Your task to perform on an android device: turn pop-ups on in chrome Image 0: 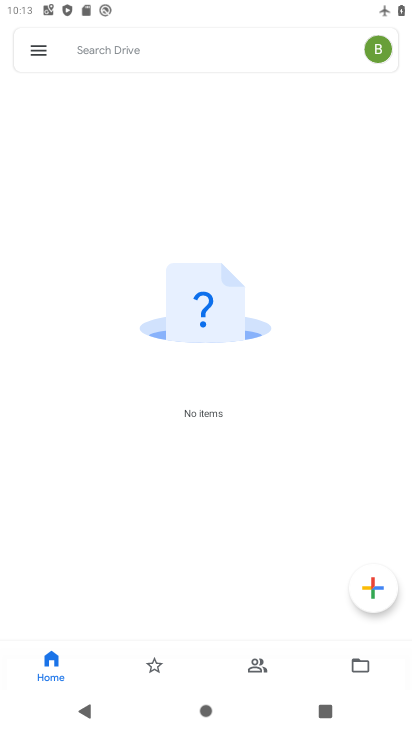
Step 0: press home button
Your task to perform on an android device: turn pop-ups on in chrome Image 1: 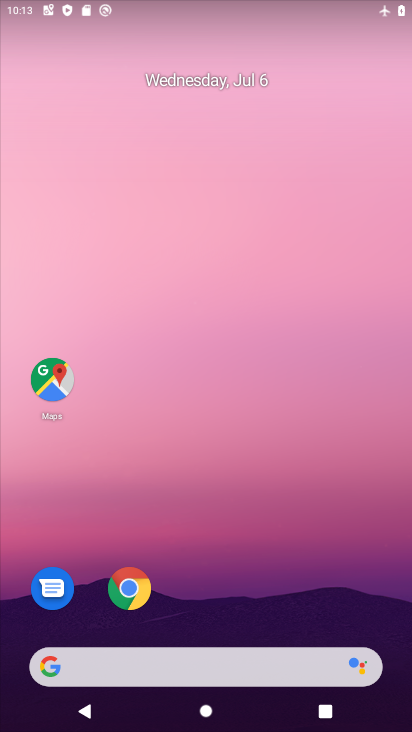
Step 1: drag from (254, 579) to (268, 268)
Your task to perform on an android device: turn pop-ups on in chrome Image 2: 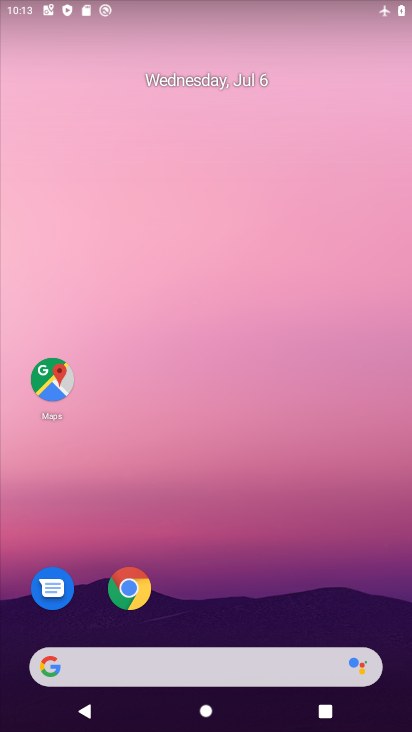
Step 2: drag from (191, 615) to (210, 273)
Your task to perform on an android device: turn pop-ups on in chrome Image 3: 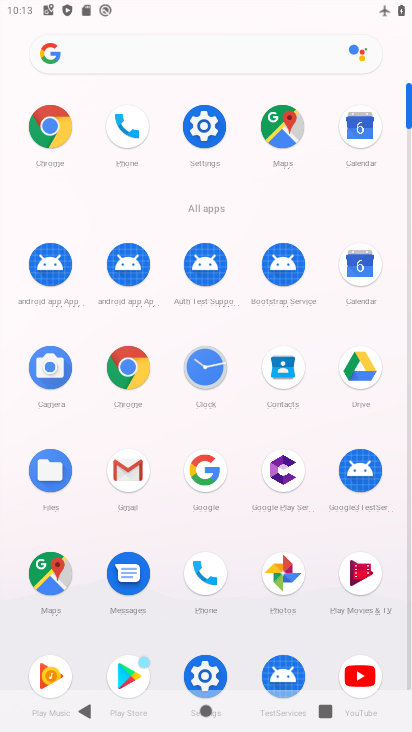
Step 3: click (128, 357)
Your task to perform on an android device: turn pop-ups on in chrome Image 4: 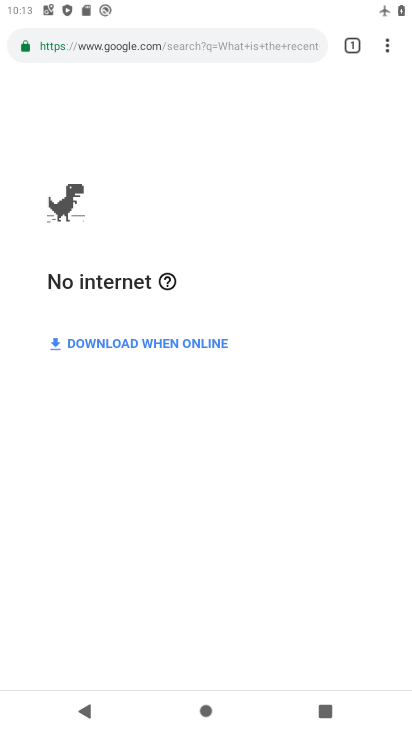
Step 4: click (391, 26)
Your task to perform on an android device: turn pop-ups on in chrome Image 5: 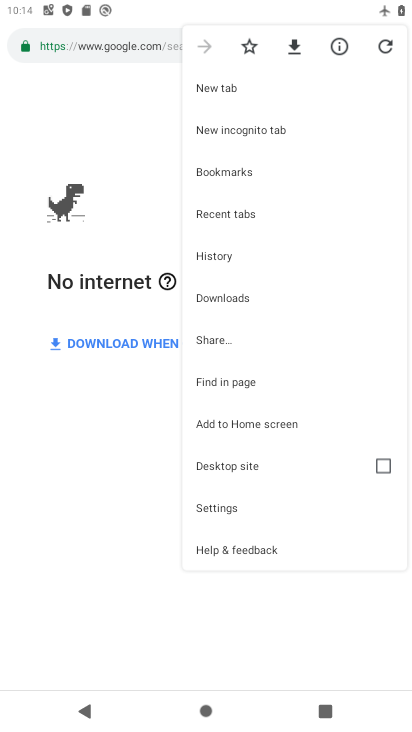
Step 5: click (241, 505)
Your task to perform on an android device: turn pop-ups on in chrome Image 6: 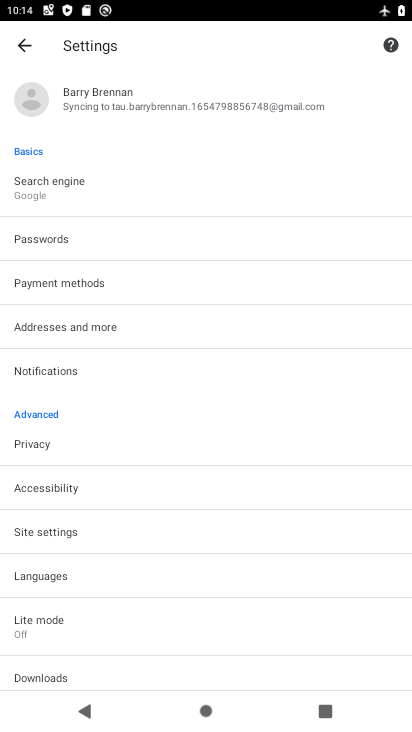
Step 6: drag from (174, 549) to (157, 335)
Your task to perform on an android device: turn pop-ups on in chrome Image 7: 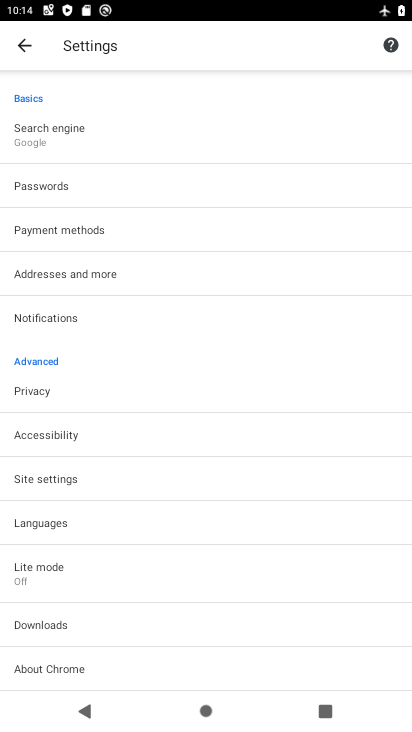
Step 7: click (88, 485)
Your task to perform on an android device: turn pop-ups on in chrome Image 8: 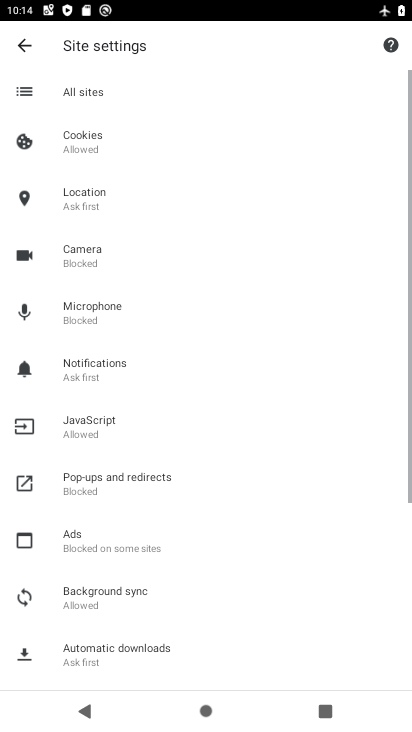
Step 8: click (145, 464)
Your task to perform on an android device: turn pop-ups on in chrome Image 9: 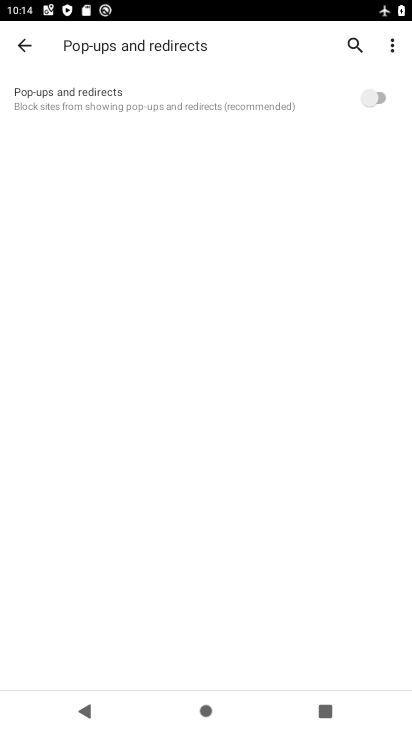
Step 9: click (383, 91)
Your task to perform on an android device: turn pop-ups on in chrome Image 10: 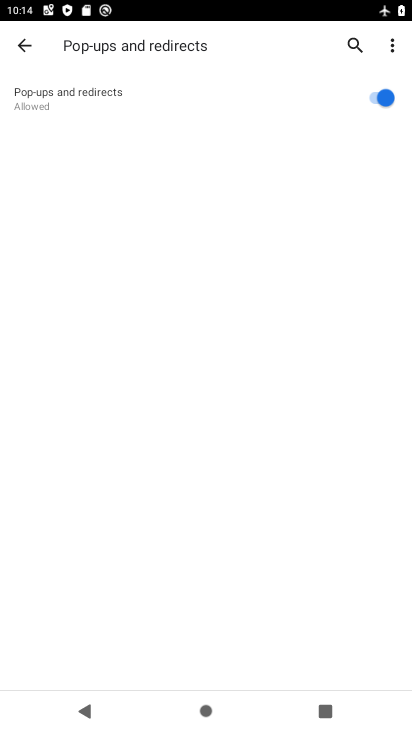
Step 10: task complete